Your task to perform on an android device: Open Google Maps Image 0: 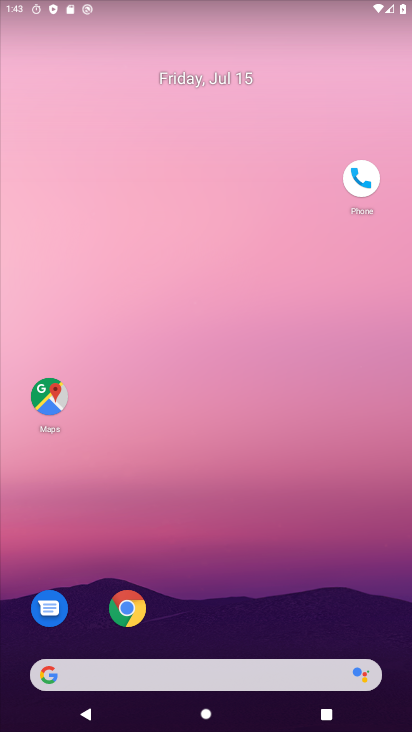
Step 0: drag from (197, 665) to (211, 45)
Your task to perform on an android device: Open Google Maps Image 1: 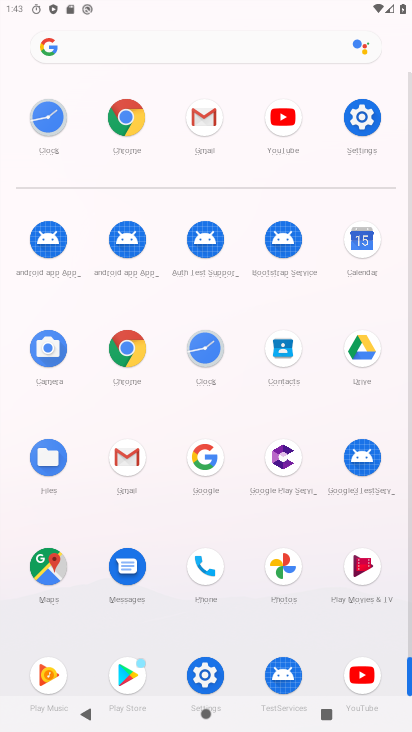
Step 1: click (47, 559)
Your task to perform on an android device: Open Google Maps Image 2: 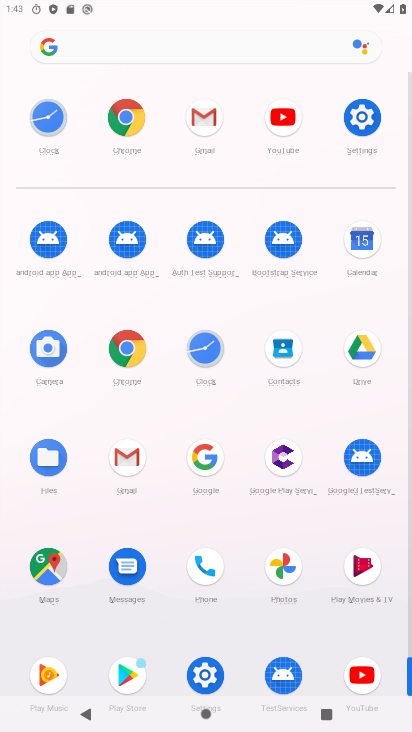
Step 2: click (47, 559)
Your task to perform on an android device: Open Google Maps Image 3: 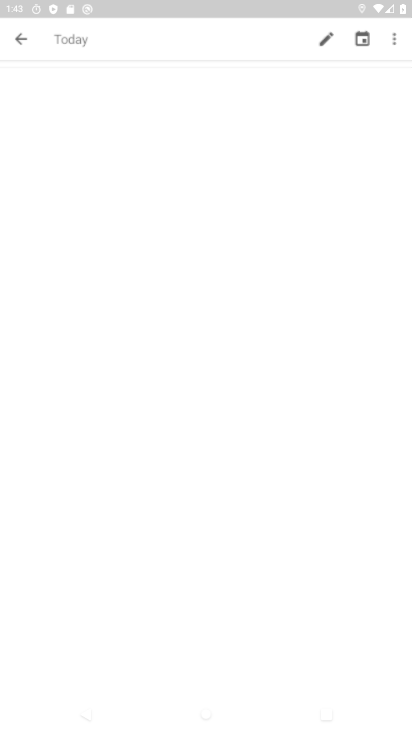
Step 3: drag from (225, 540) to (303, 210)
Your task to perform on an android device: Open Google Maps Image 4: 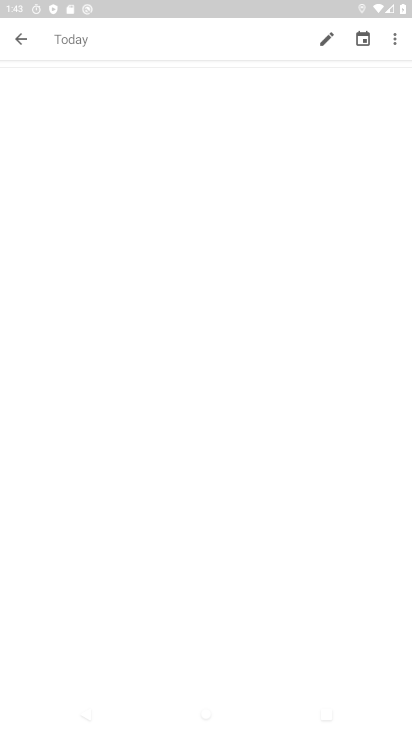
Step 4: drag from (207, 553) to (325, 214)
Your task to perform on an android device: Open Google Maps Image 5: 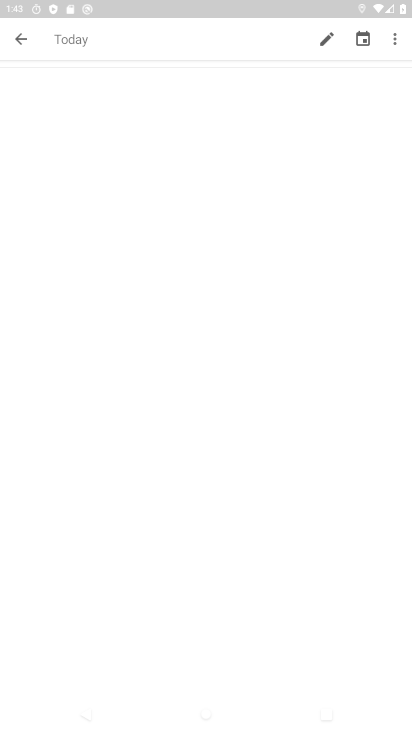
Step 5: click (27, 40)
Your task to perform on an android device: Open Google Maps Image 6: 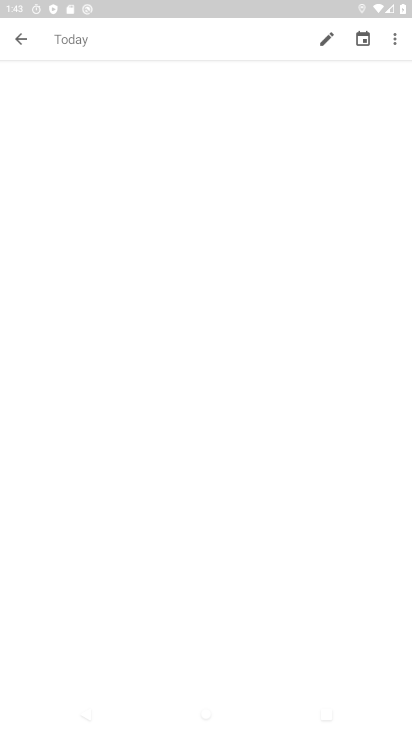
Step 6: task complete